Your task to perform on an android device: change notification settings in the gmail app Image 0: 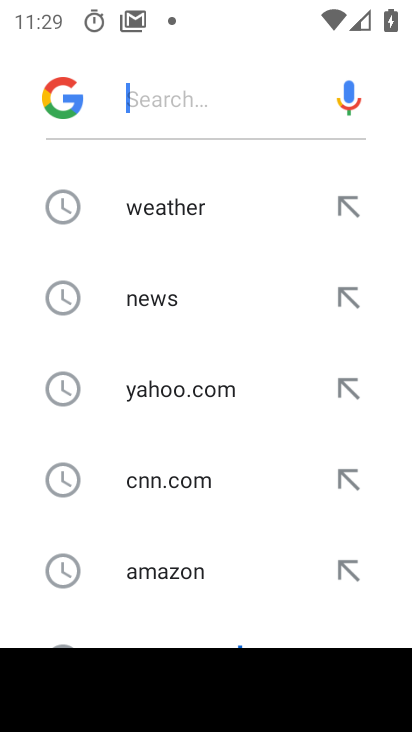
Step 0: press home button
Your task to perform on an android device: change notification settings in the gmail app Image 1: 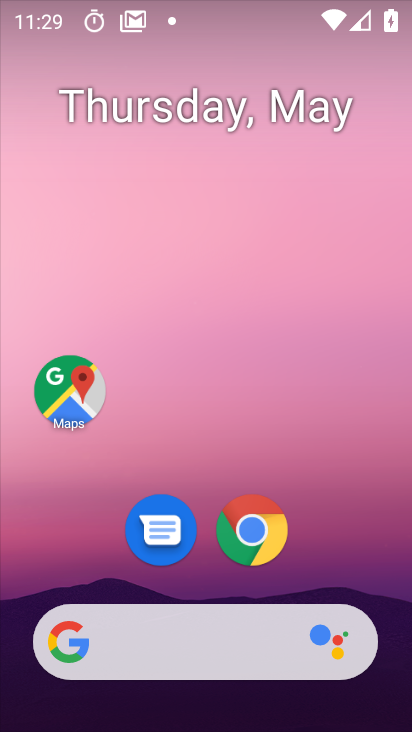
Step 1: drag from (387, 397) to (369, 280)
Your task to perform on an android device: change notification settings in the gmail app Image 2: 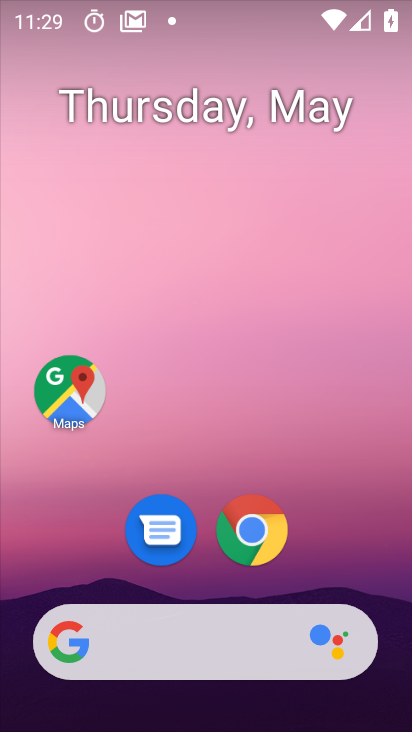
Step 2: drag from (390, 536) to (366, 193)
Your task to perform on an android device: change notification settings in the gmail app Image 3: 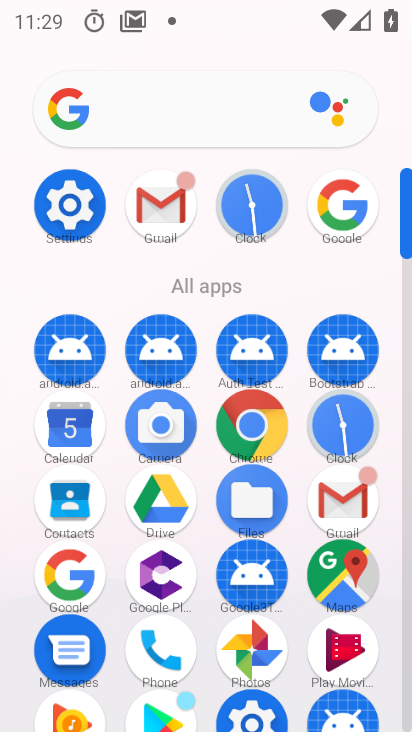
Step 3: click (342, 492)
Your task to perform on an android device: change notification settings in the gmail app Image 4: 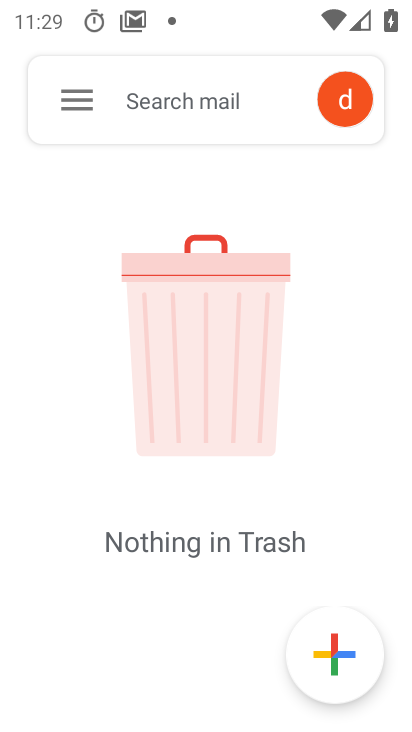
Step 4: click (78, 98)
Your task to perform on an android device: change notification settings in the gmail app Image 5: 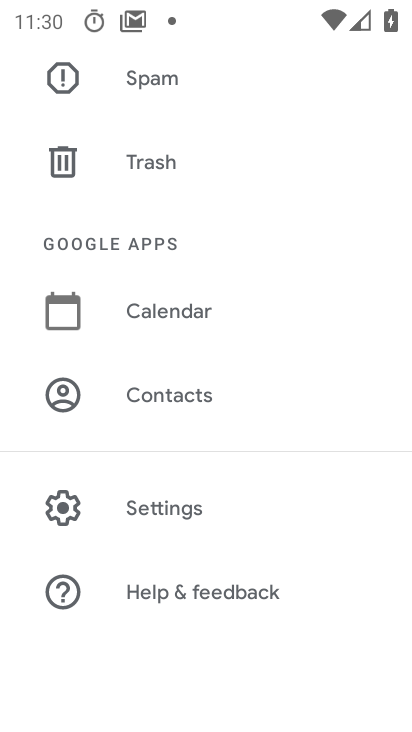
Step 5: click (138, 502)
Your task to perform on an android device: change notification settings in the gmail app Image 6: 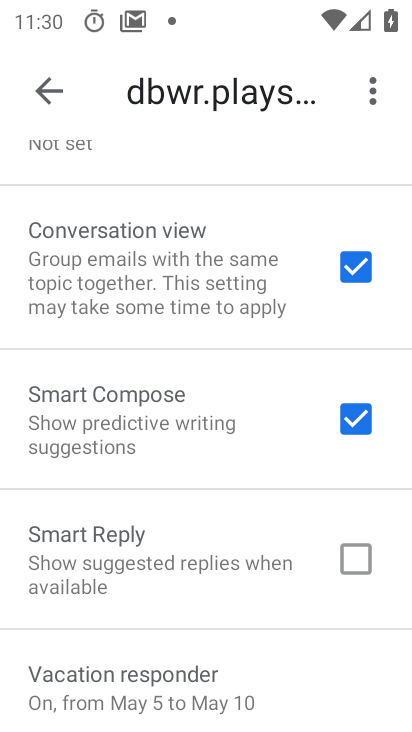
Step 6: click (61, 90)
Your task to perform on an android device: change notification settings in the gmail app Image 7: 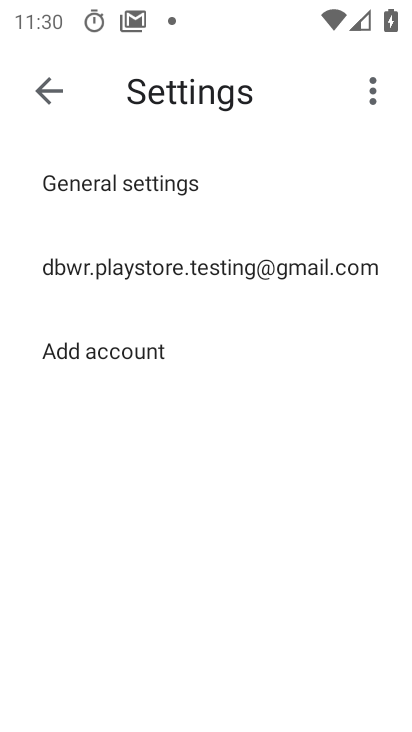
Step 7: click (112, 180)
Your task to perform on an android device: change notification settings in the gmail app Image 8: 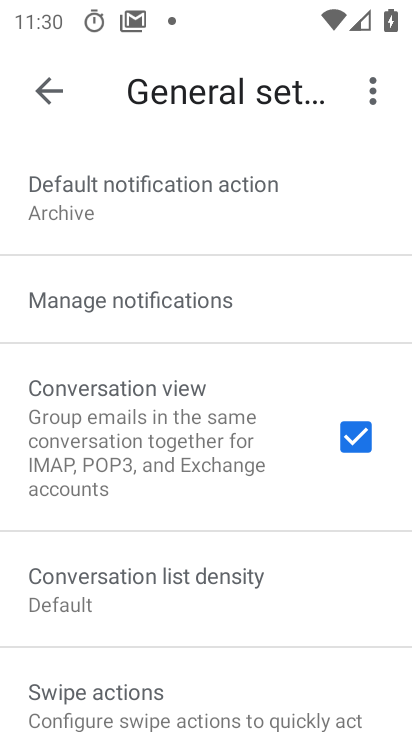
Step 8: click (129, 296)
Your task to perform on an android device: change notification settings in the gmail app Image 9: 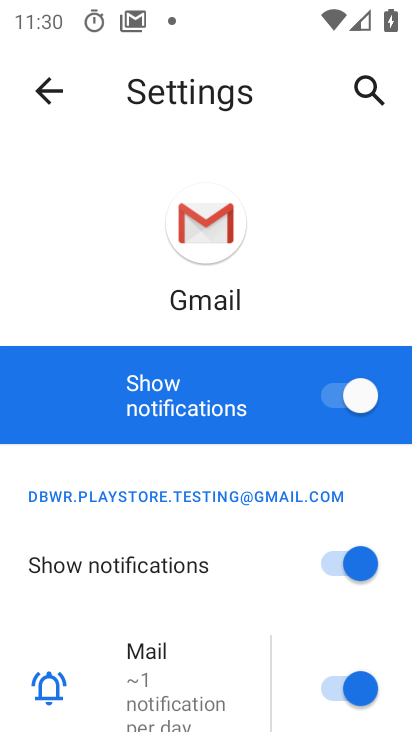
Step 9: click (332, 397)
Your task to perform on an android device: change notification settings in the gmail app Image 10: 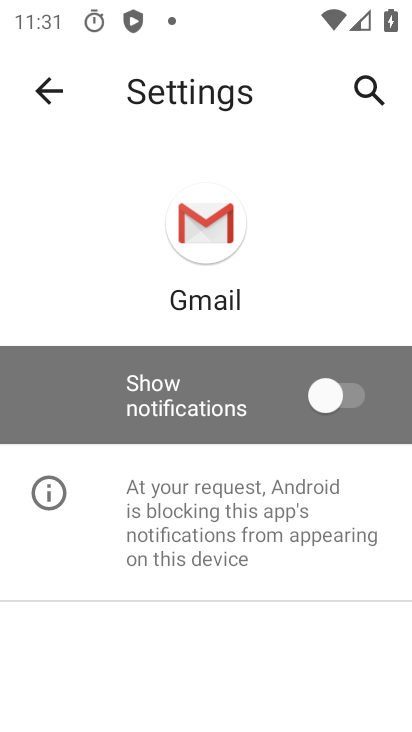
Step 10: task complete